Your task to perform on an android device: turn on priority inbox in the gmail app Image 0: 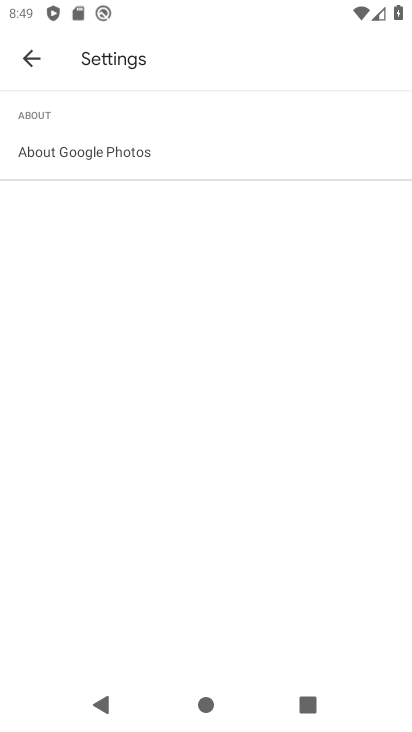
Step 0: press home button
Your task to perform on an android device: turn on priority inbox in the gmail app Image 1: 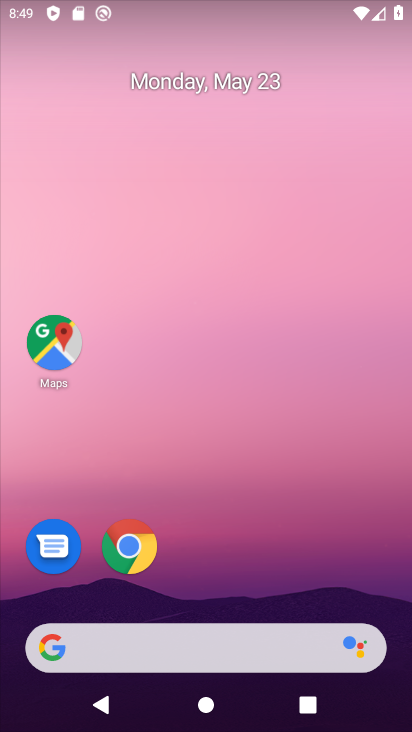
Step 1: drag from (349, 586) to (284, 205)
Your task to perform on an android device: turn on priority inbox in the gmail app Image 2: 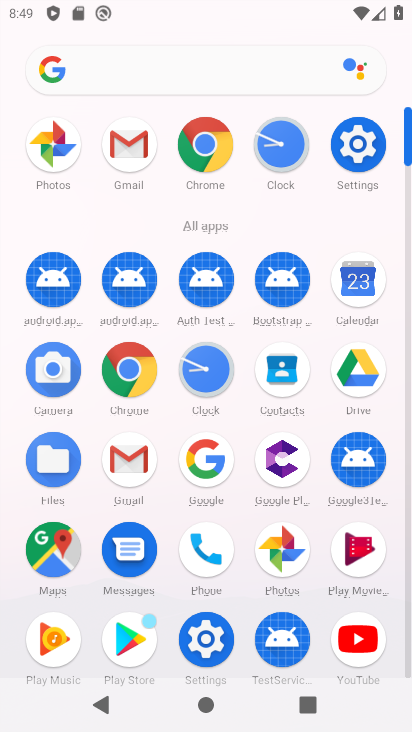
Step 2: click (124, 157)
Your task to perform on an android device: turn on priority inbox in the gmail app Image 3: 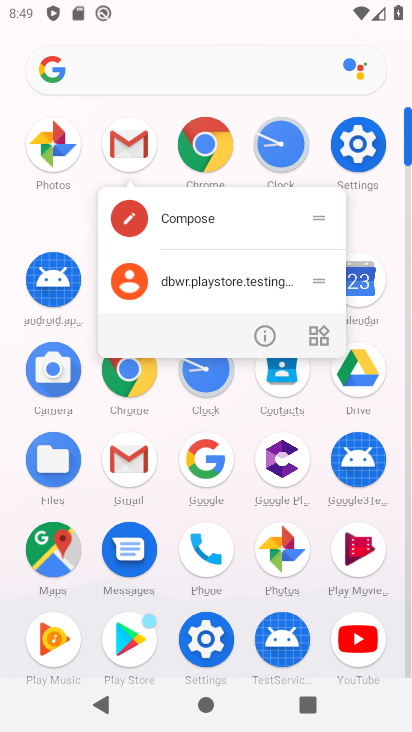
Step 3: click (134, 144)
Your task to perform on an android device: turn on priority inbox in the gmail app Image 4: 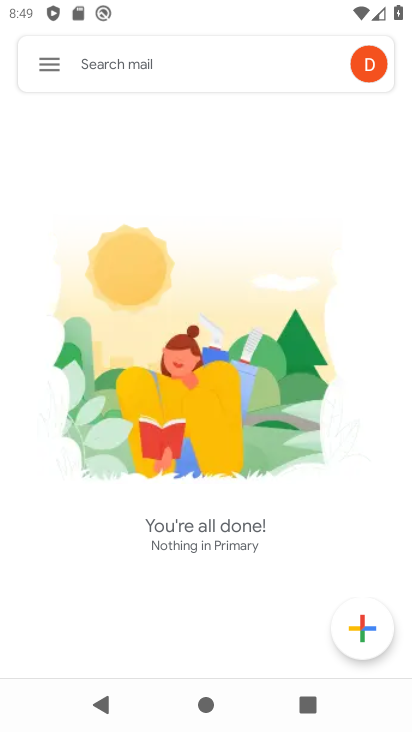
Step 4: click (30, 54)
Your task to perform on an android device: turn on priority inbox in the gmail app Image 5: 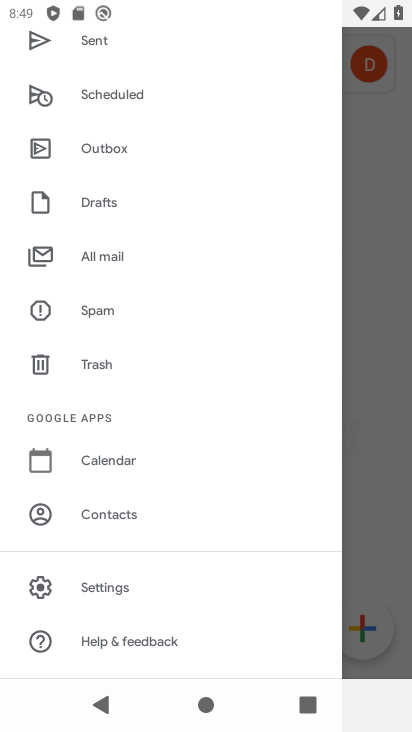
Step 5: click (162, 602)
Your task to perform on an android device: turn on priority inbox in the gmail app Image 6: 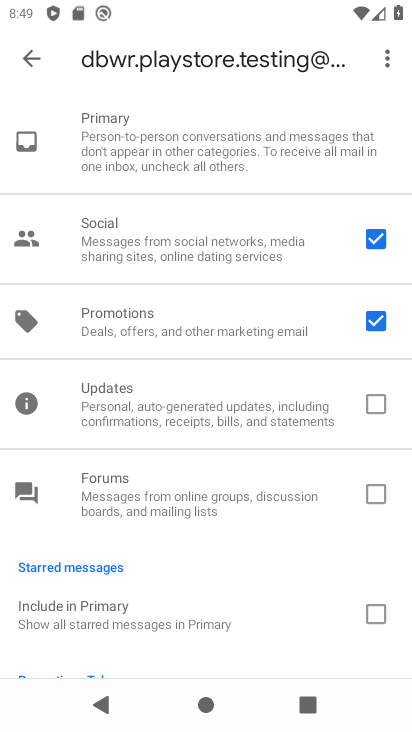
Step 6: click (34, 60)
Your task to perform on an android device: turn on priority inbox in the gmail app Image 7: 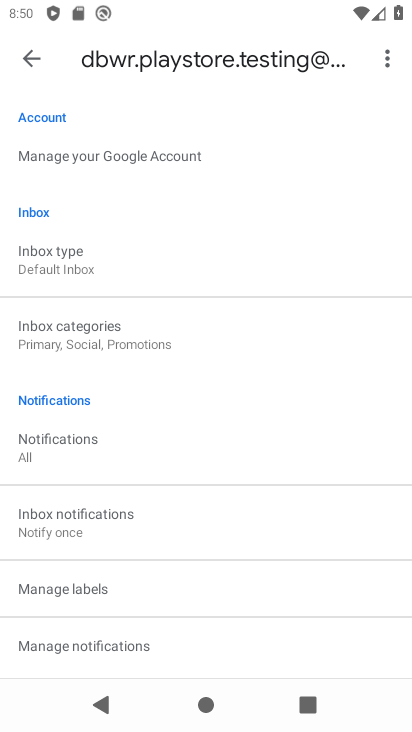
Step 7: drag from (110, 221) to (97, 405)
Your task to perform on an android device: turn on priority inbox in the gmail app Image 8: 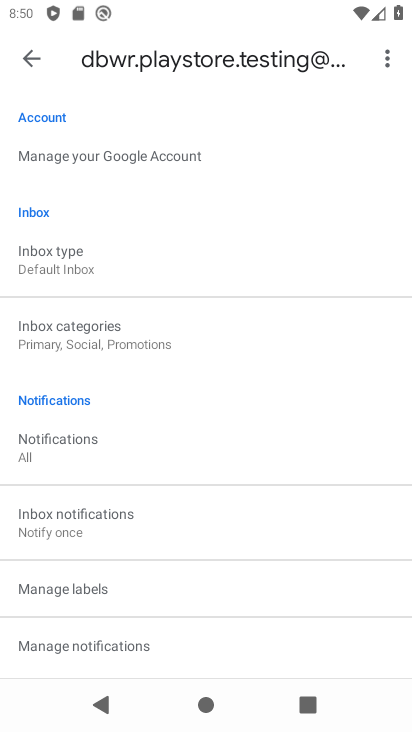
Step 8: click (60, 259)
Your task to perform on an android device: turn on priority inbox in the gmail app Image 9: 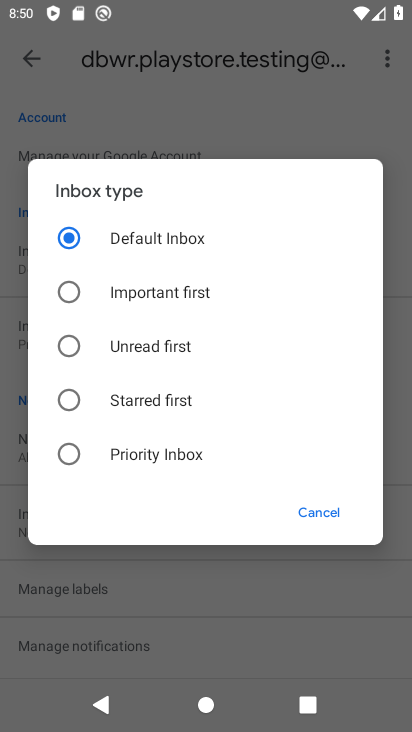
Step 9: task complete